Your task to perform on an android device: Open Google Image 0: 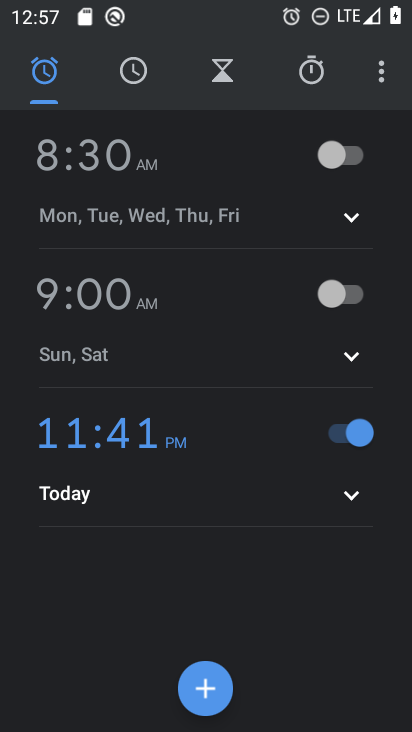
Step 0: press home button
Your task to perform on an android device: Open Google Image 1: 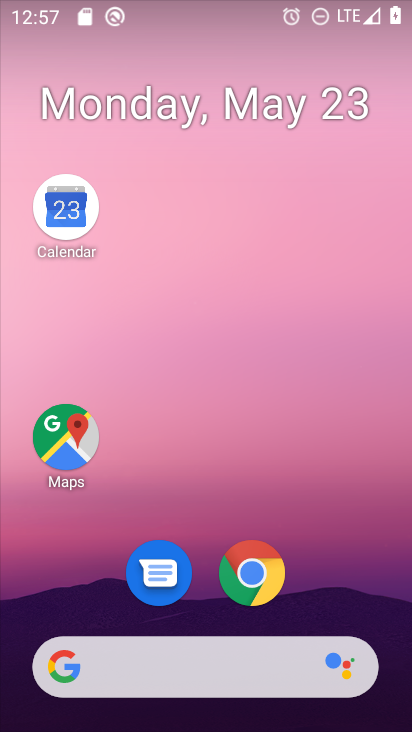
Step 1: drag from (316, 584) to (386, 37)
Your task to perform on an android device: Open Google Image 2: 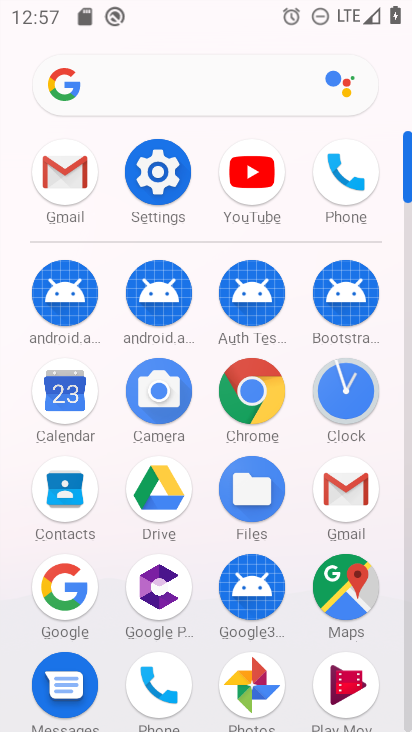
Step 2: click (60, 580)
Your task to perform on an android device: Open Google Image 3: 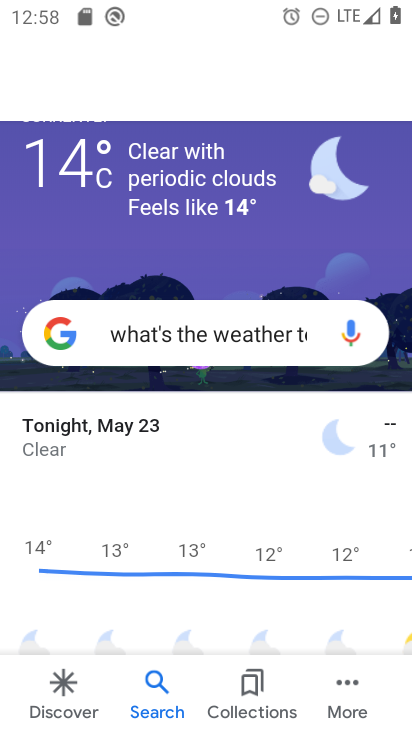
Step 3: task complete